Your task to perform on an android device: see tabs open on other devices in the chrome app Image 0: 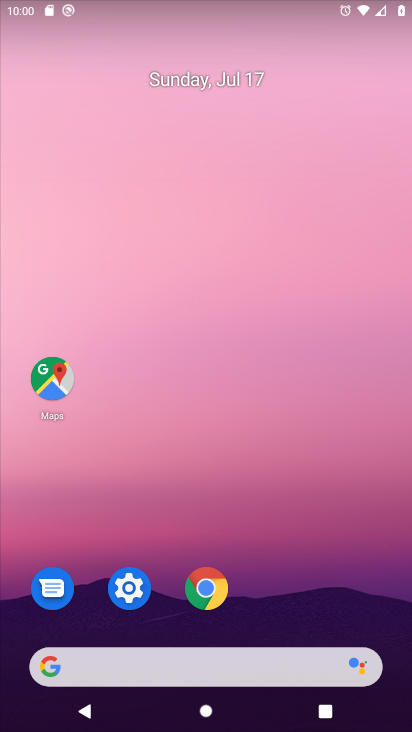
Step 0: drag from (243, 706) to (266, 183)
Your task to perform on an android device: see tabs open on other devices in the chrome app Image 1: 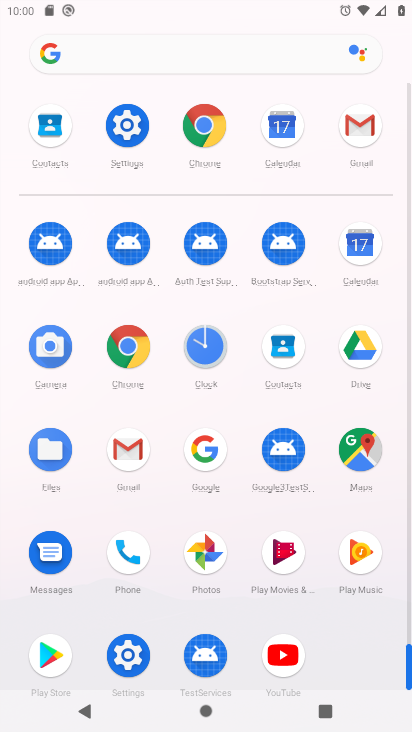
Step 1: click (136, 349)
Your task to perform on an android device: see tabs open on other devices in the chrome app Image 2: 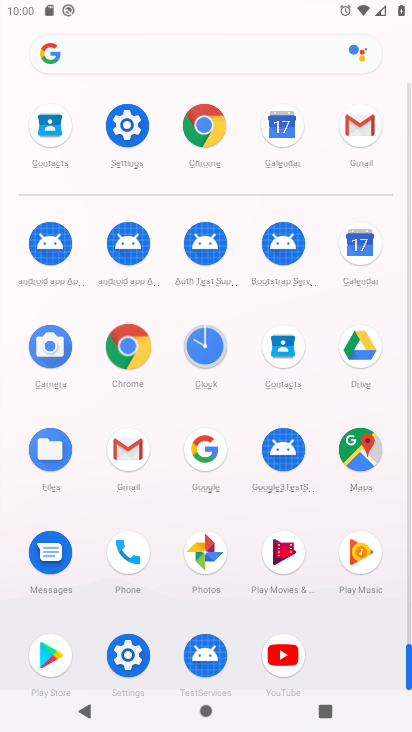
Step 2: click (136, 349)
Your task to perform on an android device: see tabs open on other devices in the chrome app Image 3: 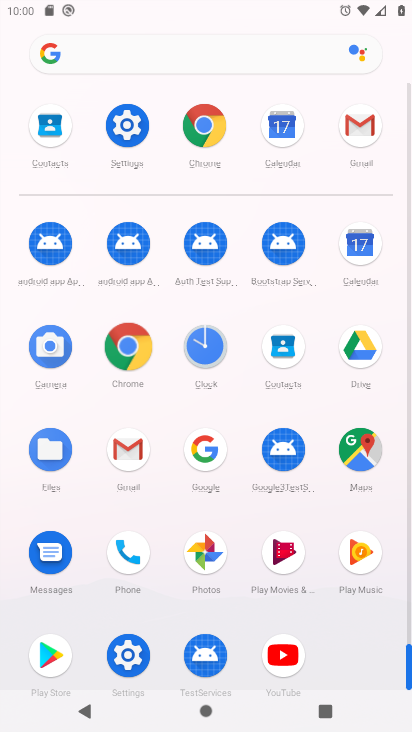
Step 3: click (137, 348)
Your task to perform on an android device: see tabs open on other devices in the chrome app Image 4: 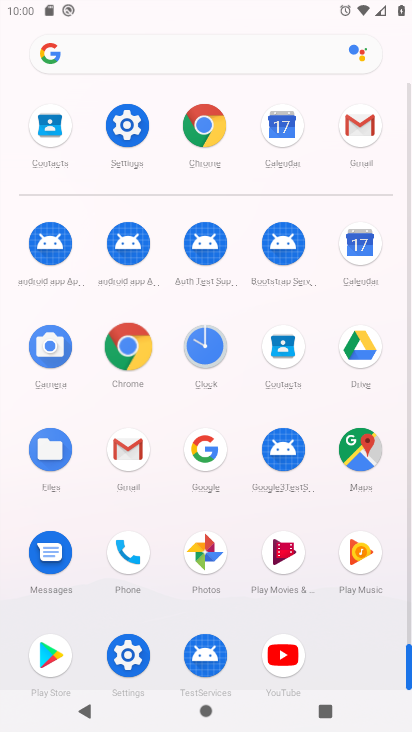
Step 4: click (137, 348)
Your task to perform on an android device: see tabs open on other devices in the chrome app Image 5: 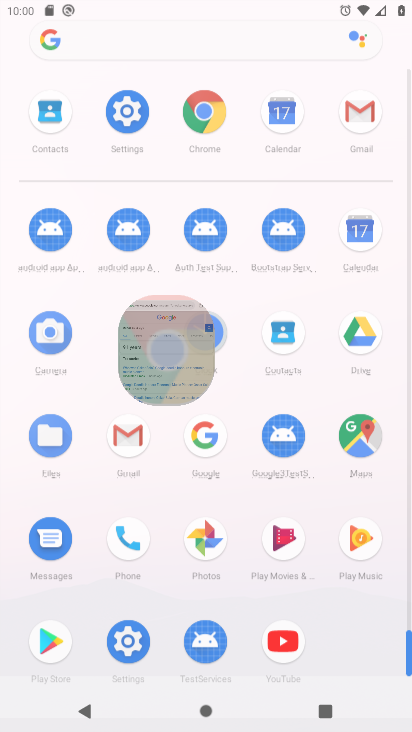
Step 5: click (139, 347)
Your task to perform on an android device: see tabs open on other devices in the chrome app Image 6: 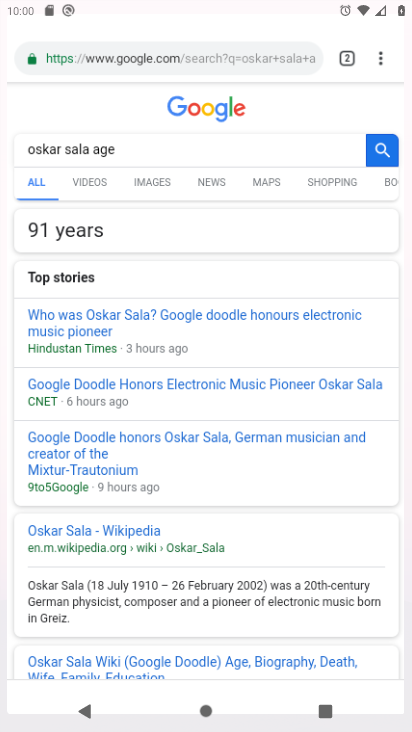
Step 6: click (139, 347)
Your task to perform on an android device: see tabs open on other devices in the chrome app Image 7: 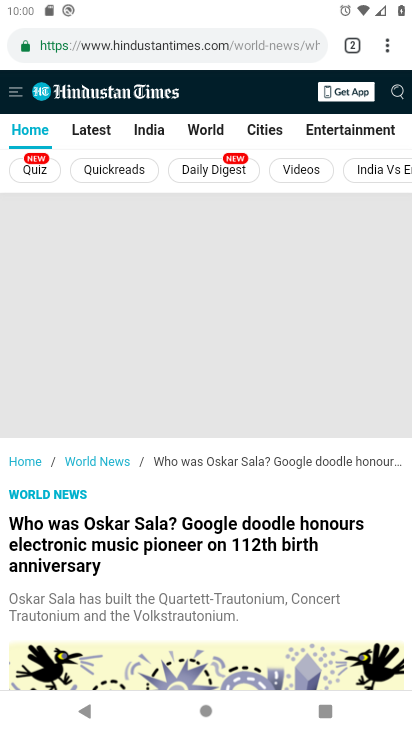
Step 7: drag from (389, 42) to (223, 550)
Your task to perform on an android device: see tabs open on other devices in the chrome app Image 8: 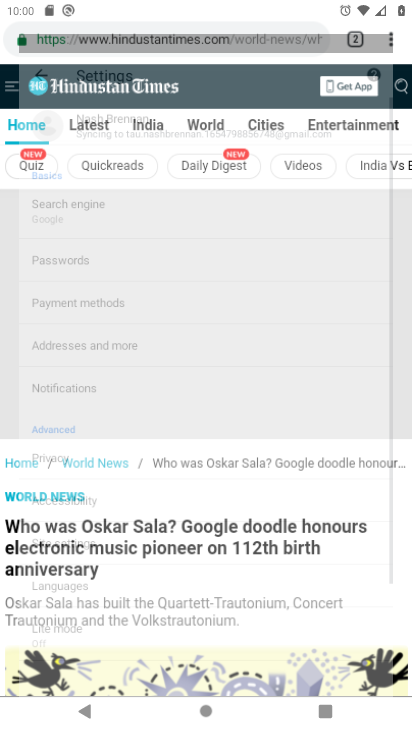
Step 8: click (229, 547)
Your task to perform on an android device: see tabs open on other devices in the chrome app Image 9: 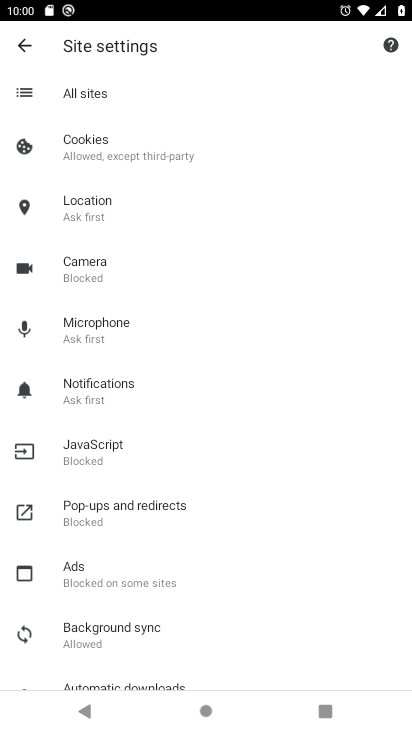
Step 9: click (87, 123)
Your task to perform on an android device: see tabs open on other devices in the chrome app Image 10: 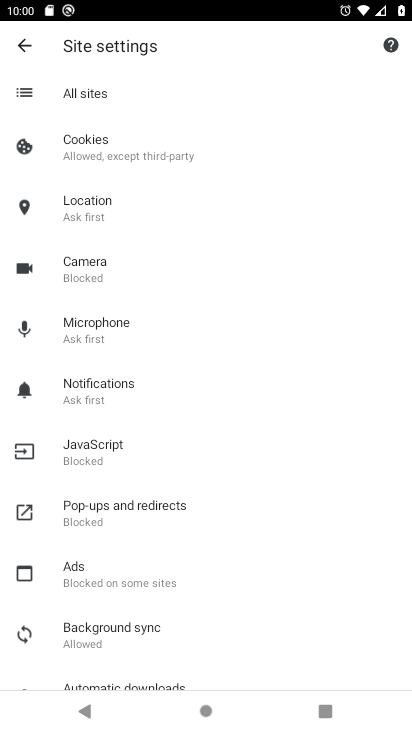
Step 10: drag from (125, 476) to (156, 219)
Your task to perform on an android device: see tabs open on other devices in the chrome app Image 11: 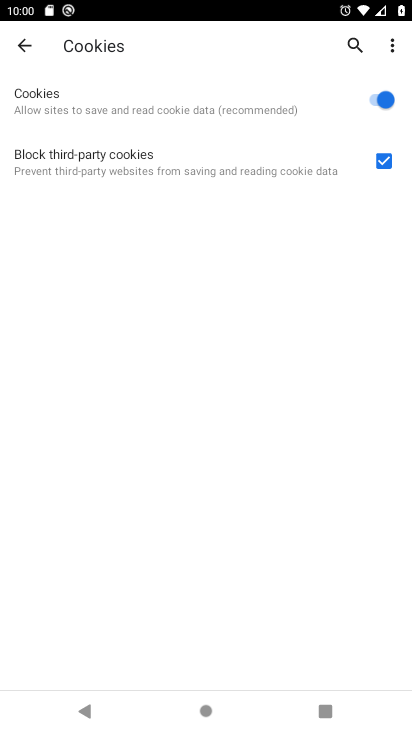
Step 11: drag from (138, 459) to (157, 112)
Your task to perform on an android device: see tabs open on other devices in the chrome app Image 12: 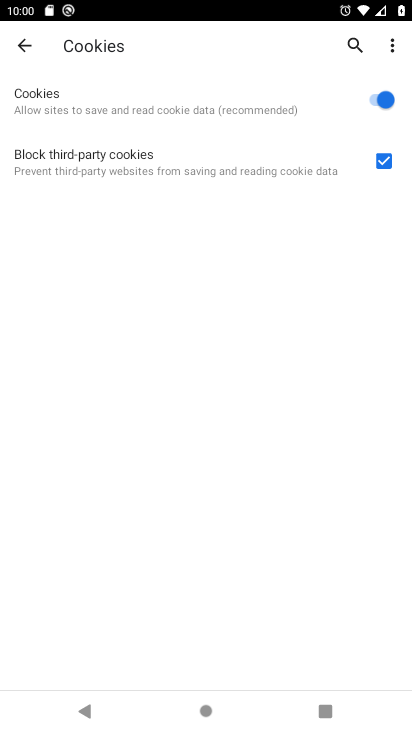
Step 12: click (31, 42)
Your task to perform on an android device: see tabs open on other devices in the chrome app Image 13: 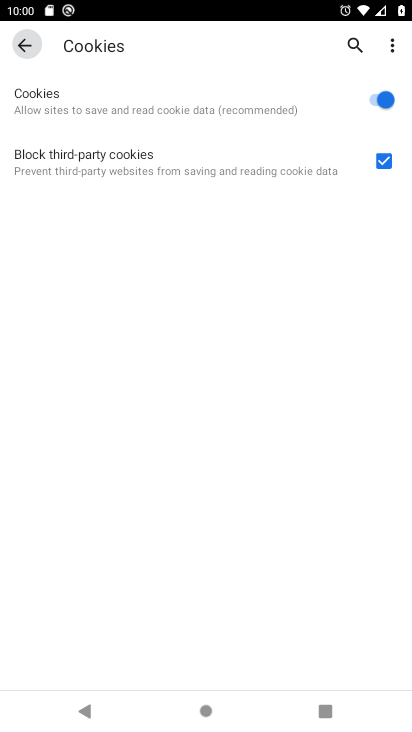
Step 13: click (22, 47)
Your task to perform on an android device: see tabs open on other devices in the chrome app Image 14: 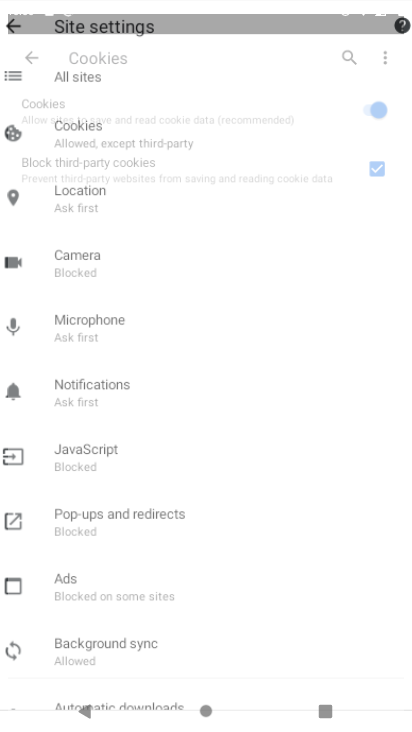
Step 14: click (22, 47)
Your task to perform on an android device: see tabs open on other devices in the chrome app Image 15: 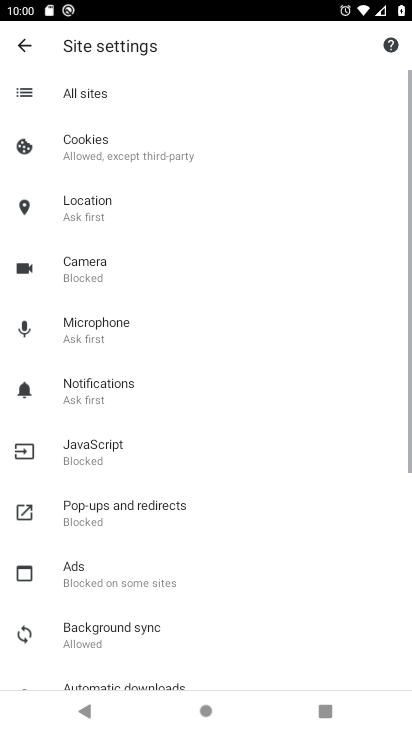
Step 15: click (24, 49)
Your task to perform on an android device: see tabs open on other devices in the chrome app Image 16: 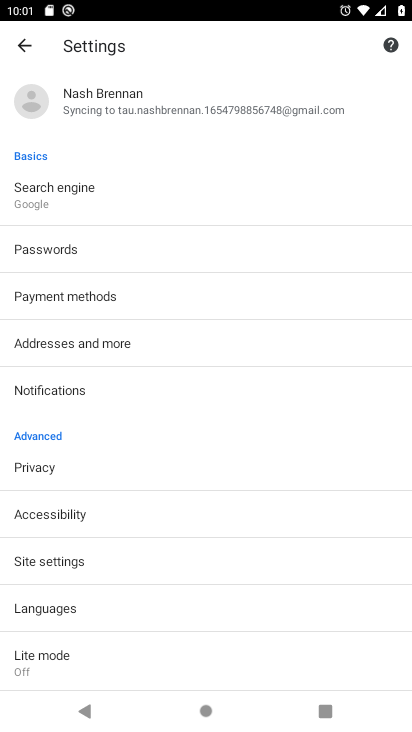
Step 16: drag from (96, 544) to (108, 215)
Your task to perform on an android device: see tabs open on other devices in the chrome app Image 17: 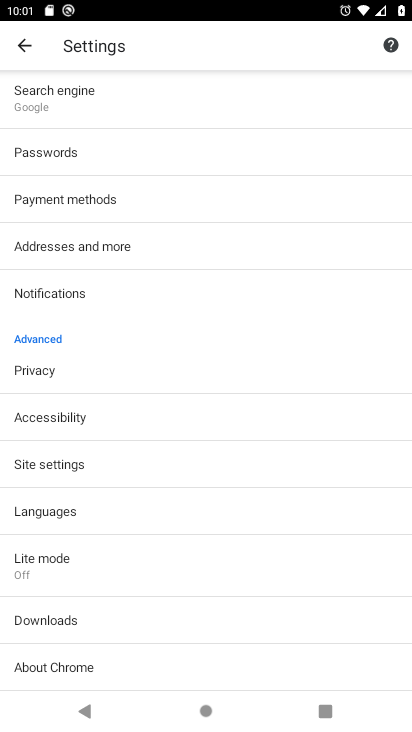
Step 17: drag from (69, 617) to (40, 151)
Your task to perform on an android device: see tabs open on other devices in the chrome app Image 18: 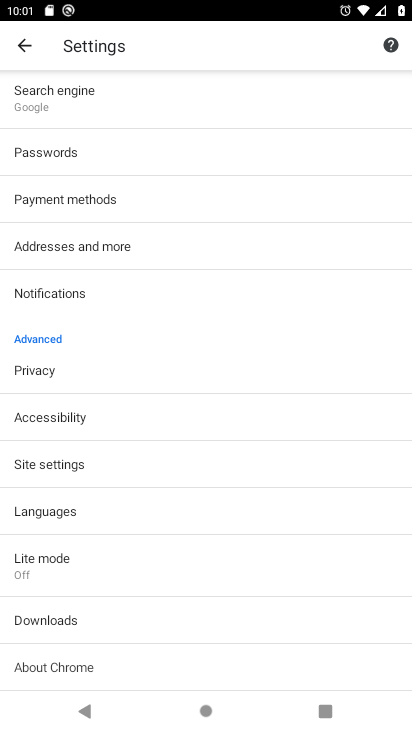
Step 18: click (92, 192)
Your task to perform on an android device: see tabs open on other devices in the chrome app Image 19: 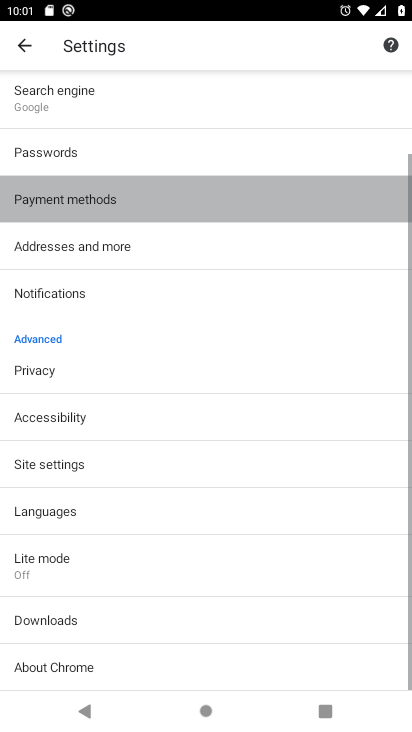
Step 19: drag from (99, 462) to (94, 310)
Your task to perform on an android device: see tabs open on other devices in the chrome app Image 20: 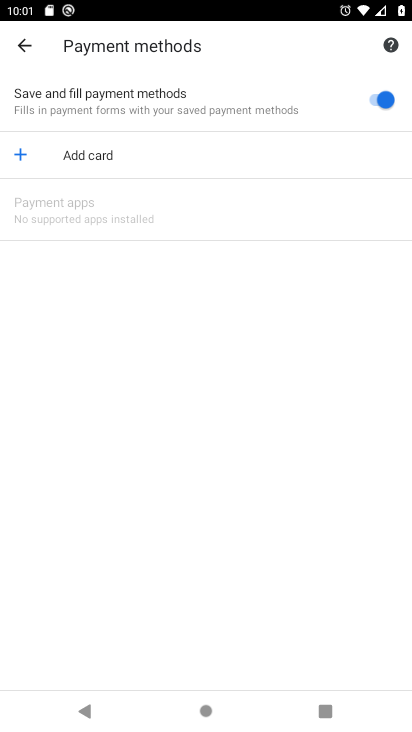
Step 20: drag from (55, 181) to (82, 508)
Your task to perform on an android device: see tabs open on other devices in the chrome app Image 21: 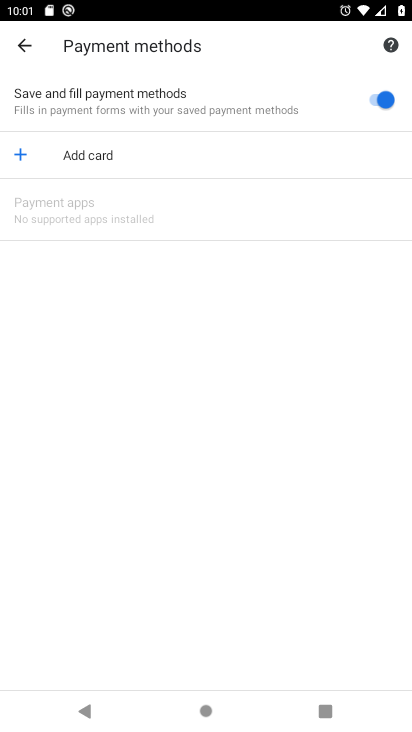
Step 21: click (23, 46)
Your task to perform on an android device: see tabs open on other devices in the chrome app Image 22: 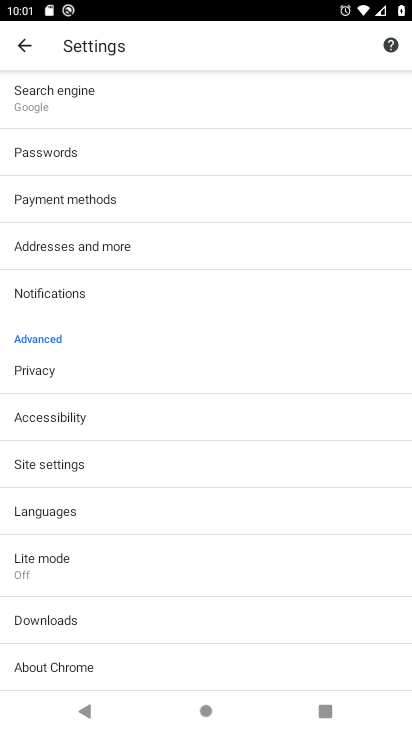
Step 22: click (21, 54)
Your task to perform on an android device: see tabs open on other devices in the chrome app Image 23: 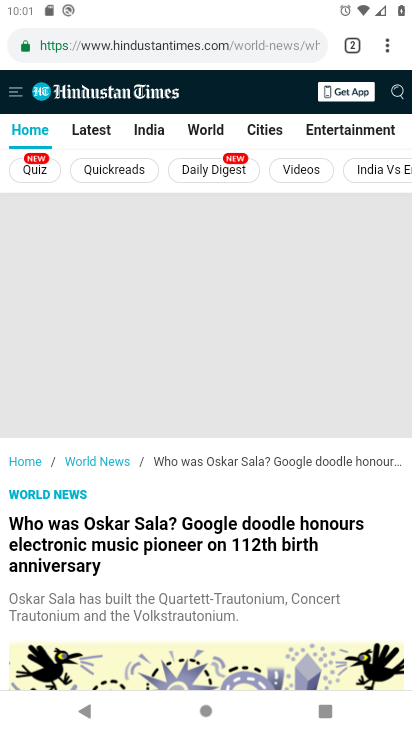
Step 23: drag from (386, 44) to (234, 212)
Your task to perform on an android device: see tabs open on other devices in the chrome app Image 24: 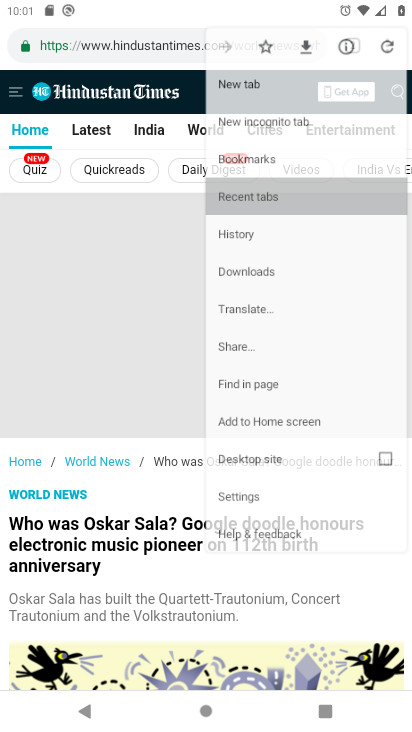
Step 24: click (235, 214)
Your task to perform on an android device: see tabs open on other devices in the chrome app Image 25: 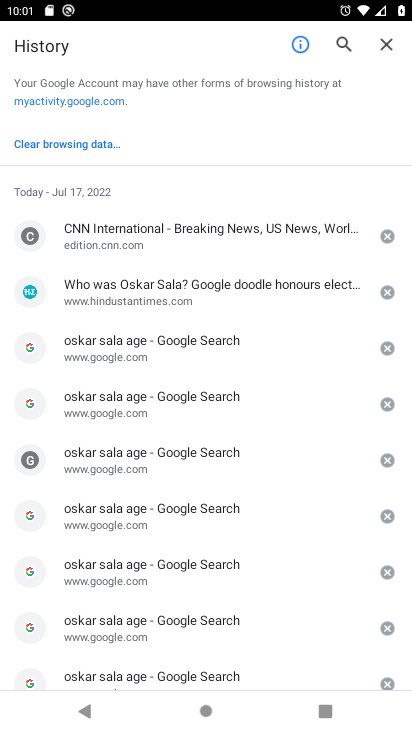
Step 25: task complete